Your task to perform on an android device: Go to eBay Image 0: 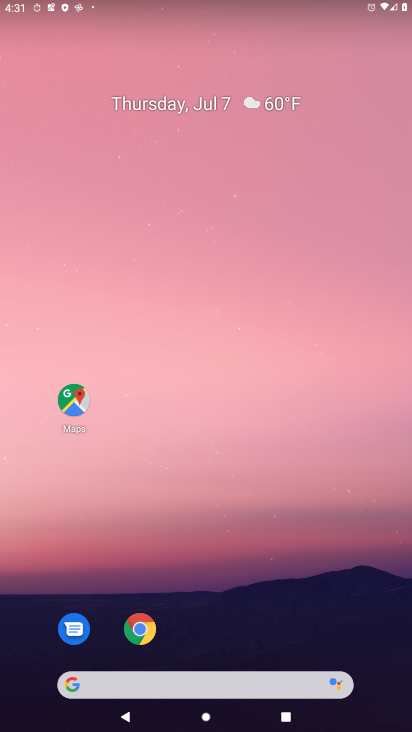
Step 0: click (136, 635)
Your task to perform on an android device: Go to eBay Image 1: 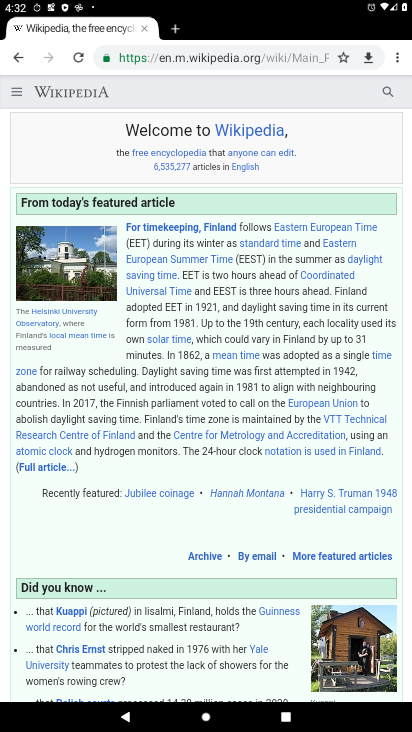
Step 1: click (16, 50)
Your task to perform on an android device: Go to eBay Image 2: 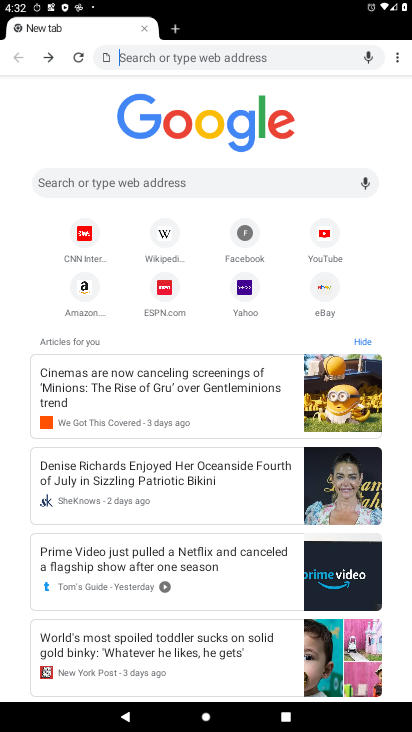
Step 2: click (334, 290)
Your task to perform on an android device: Go to eBay Image 3: 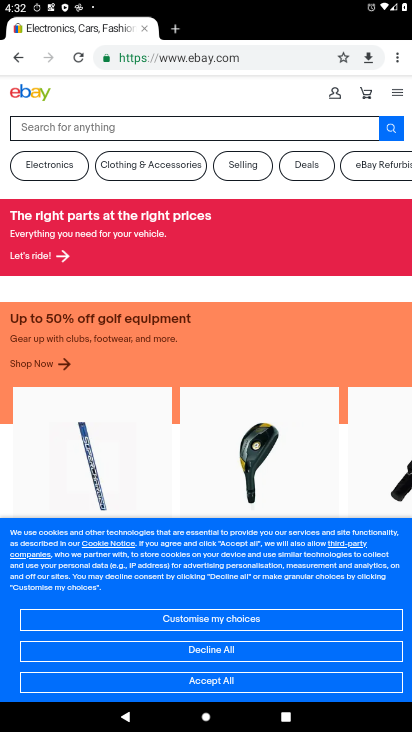
Step 3: task complete